Your task to perform on an android device: delete location history Image 0: 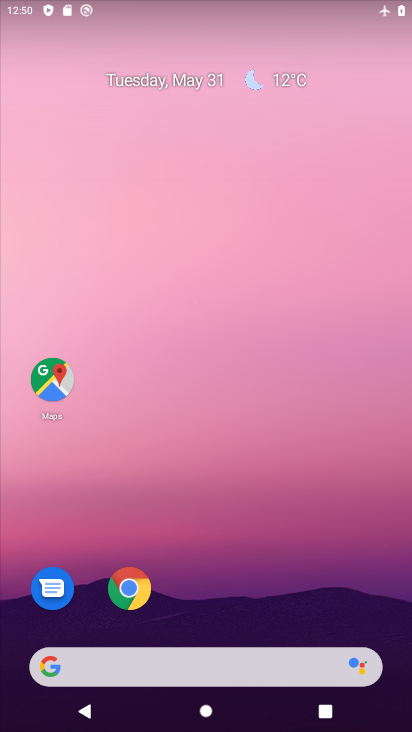
Step 0: click (43, 368)
Your task to perform on an android device: delete location history Image 1: 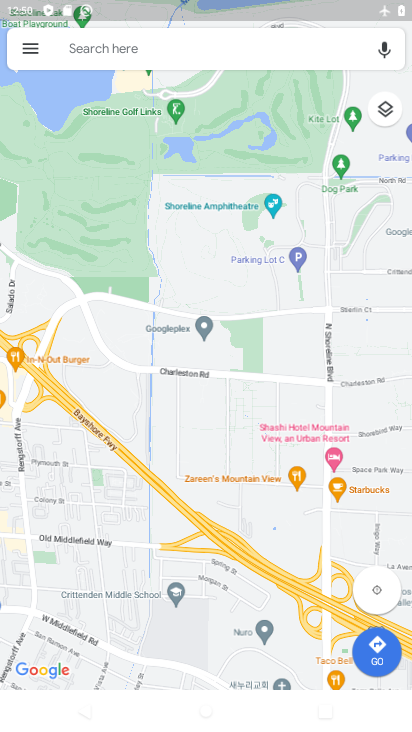
Step 1: click (22, 46)
Your task to perform on an android device: delete location history Image 2: 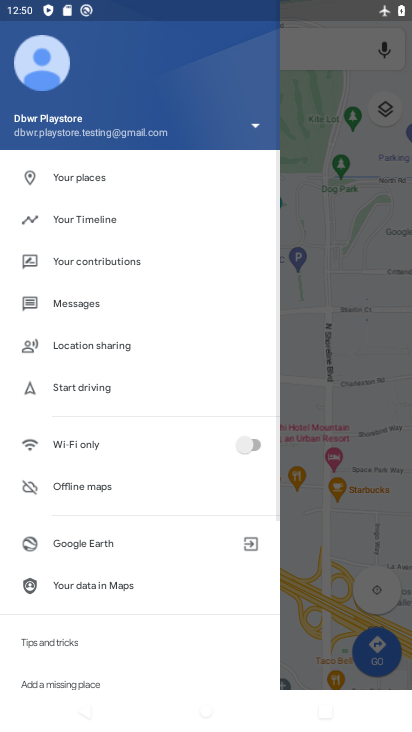
Step 2: click (64, 222)
Your task to perform on an android device: delete location history Image 3: 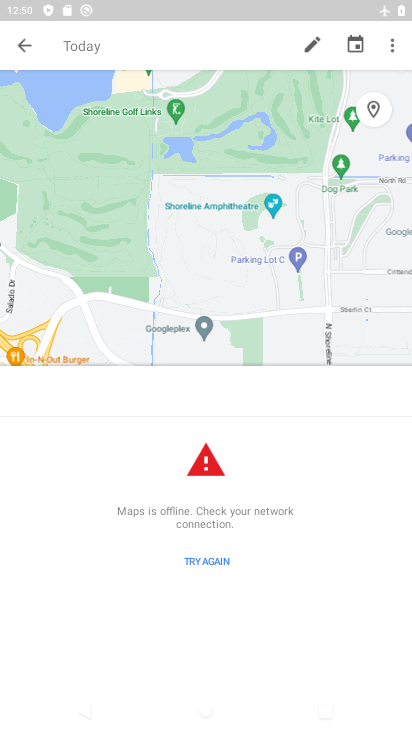
Step 3: task complete